Your task to perform on an android device: add a label to a message in the gmail app Image 0: 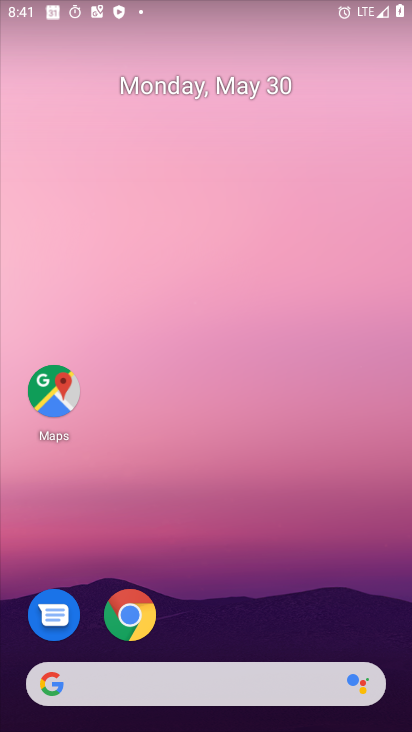
Step 0: click (270, 92)
Your task to perform on an android device: add a label to a message in the gmail app Image 1: 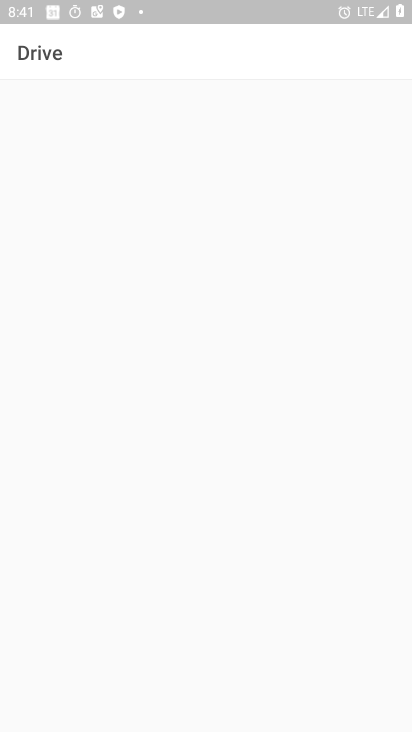
Step 1: drag from (317, 608) to (265, 31)
Your task to perform on an android device: add a label to a message in the gmail app Image 2: 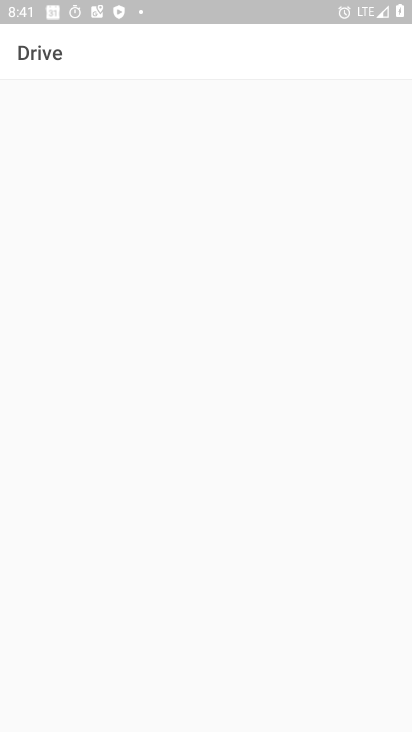
Step 2: press home button
Your task to perform on an android device: add a label to a message in the gmail app Image 3: 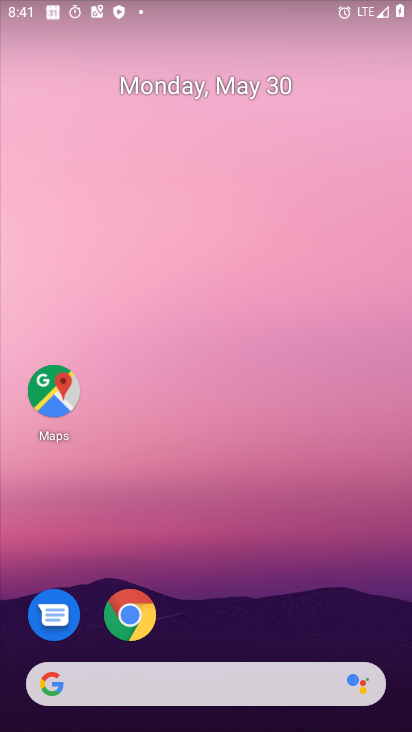
Step 3: drag from (368, 495) to (334, 6)
Your task to perform on an android device: add a label to a message in the gmail app Image 4: 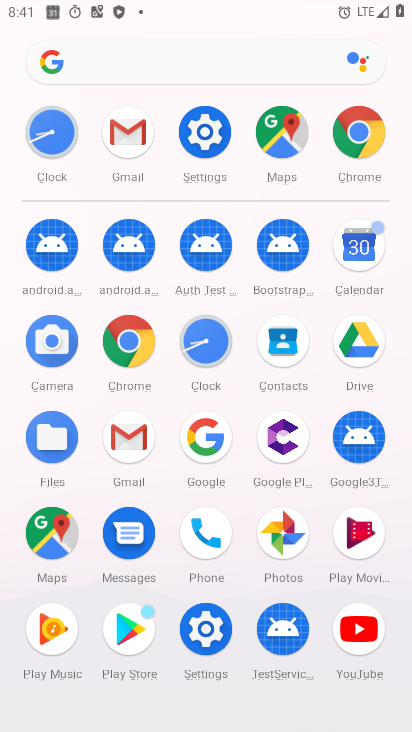
Step 4: click (130, 144)
Your task to perform on an android device: add a label to a message in the gmail app Image 5: 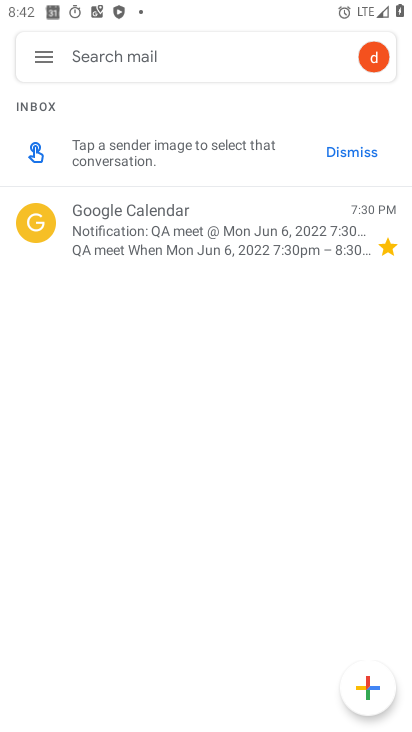
Step 5: click (134, 229)
Your task to perform on an android device: add a label to a message in the gmail app Image 6: 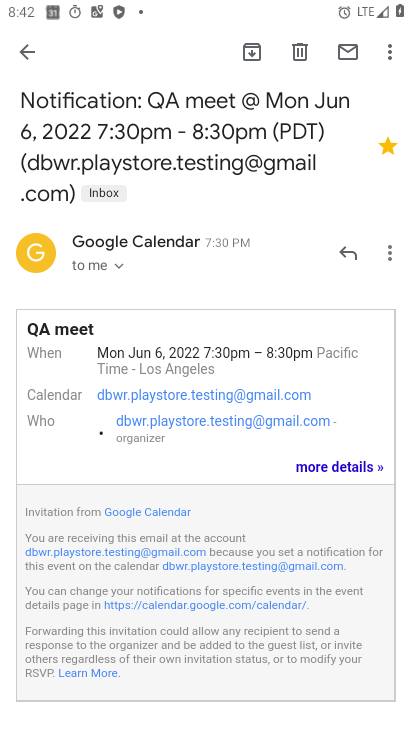
Step 6: click (391, 37)
Your task to perform on an android device: add a label to a message in the gmail app Image 7: 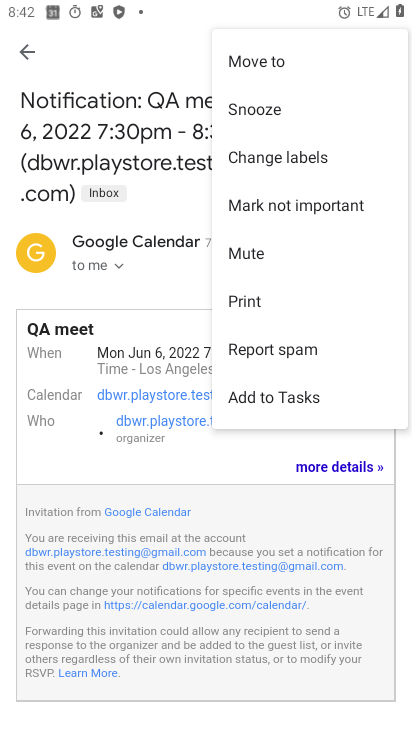
Step 7: click (271, 157)
Your task to perform on an android device: add a label to a message in the gmail app Image 8: 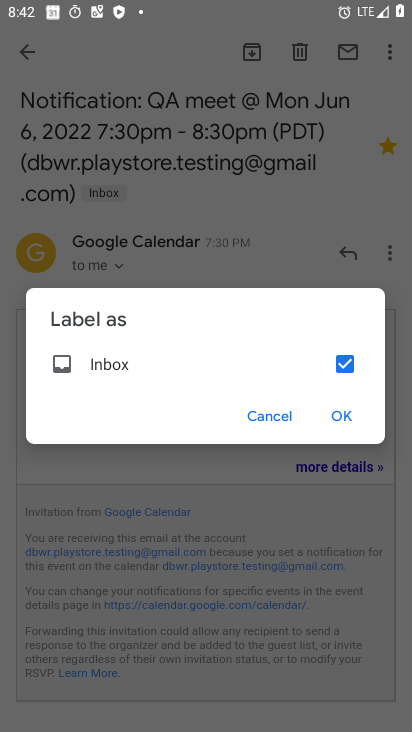
Step 8: click (349, 360)
Your task to perform on an android device: add a label to a message in the gmail app Image 9: 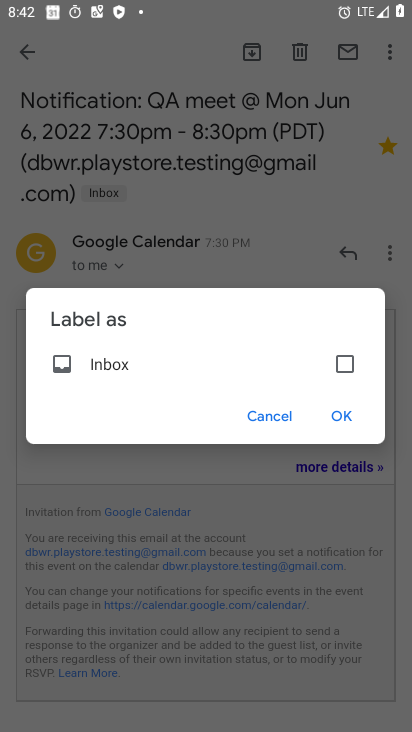
Step 9: click (350, 415)
Your task to perform on an android device: add a label to a message in the gmail app Image 10: 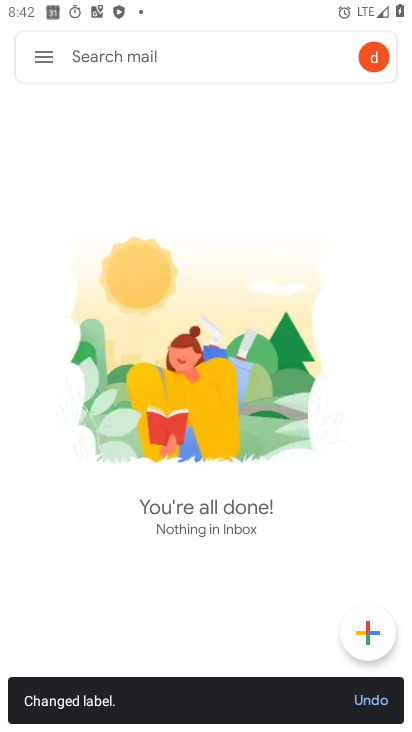
Step 10: task complete